Your task to perform on an android device: Show me popular games on the Play Store Image 0: 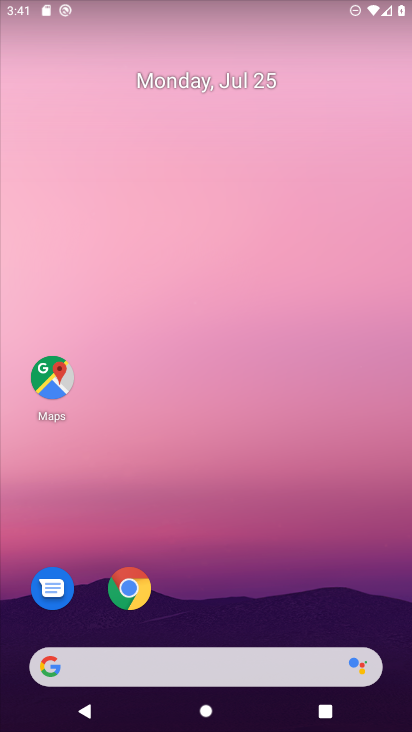
Step 0: drag from (250, 609) to (194, 216)
Your task to perform on an android device: Show me popular games on the Play Store Image 1: 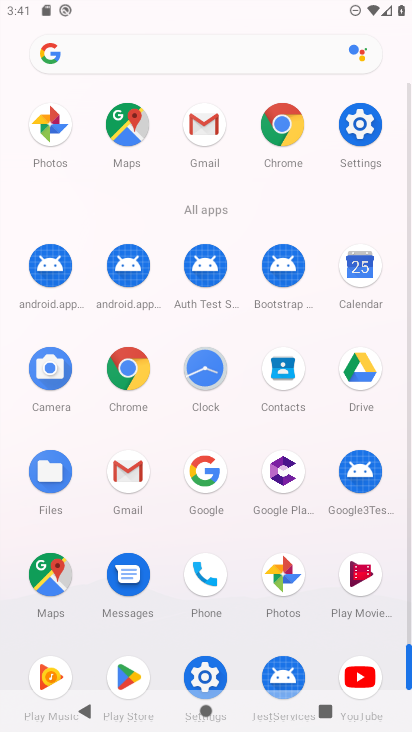
Step 1: click (123, 665)
Your task to perform on an android device: Show me popular games on the Play Store Image 2: 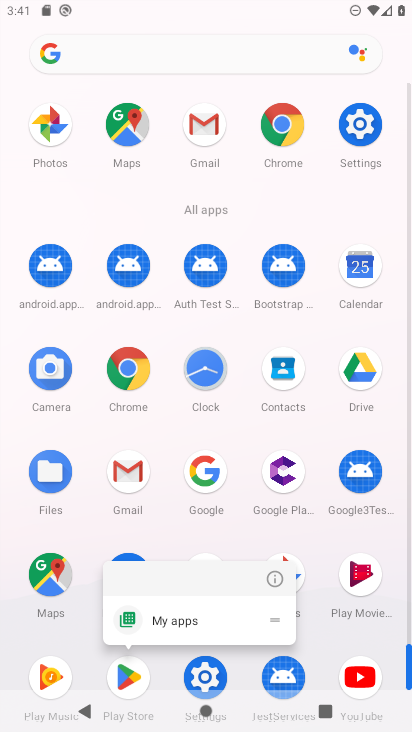
Step 2: click (137, 658)
Your task to perform on an android device: Show me popular games on the Play Store Image 3: 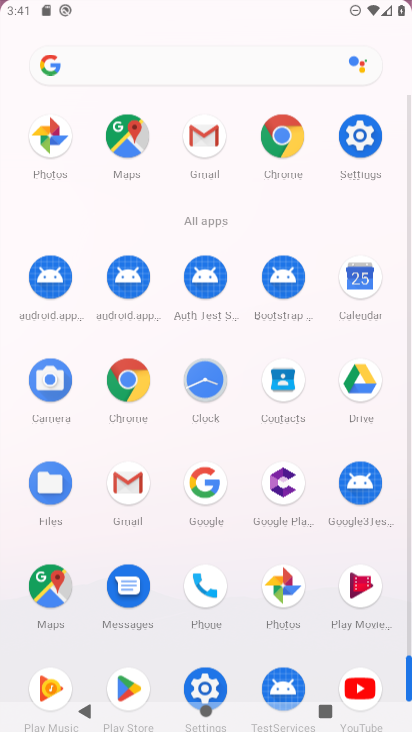
Step 3: click (138, 679)
Your task to perform on an android device: Show me popular games on the Play Store Image 4: 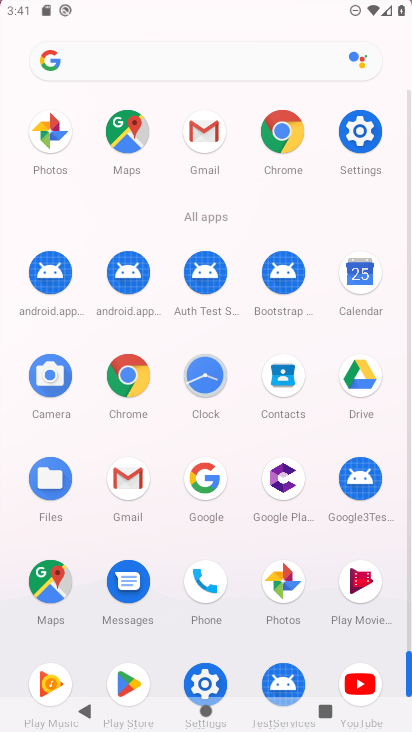
Step 4: click (140, 678)
Your task to perform on an android device: Show me popular games on the Play Store Image 5: 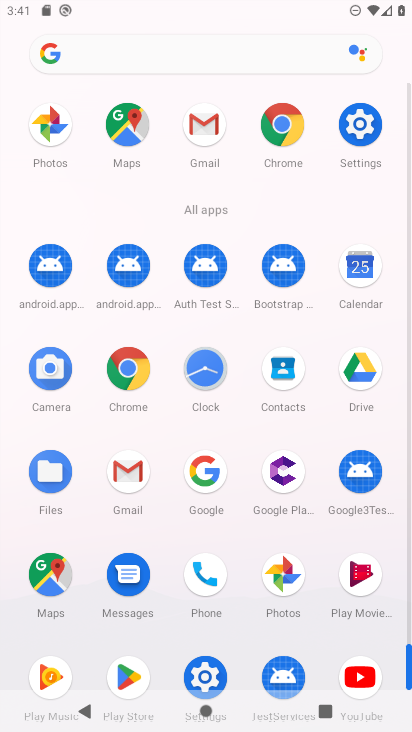
Step 5: click (118, 666)
Your task to perform on an android device: Show me popular games on the Play Store Image 6: 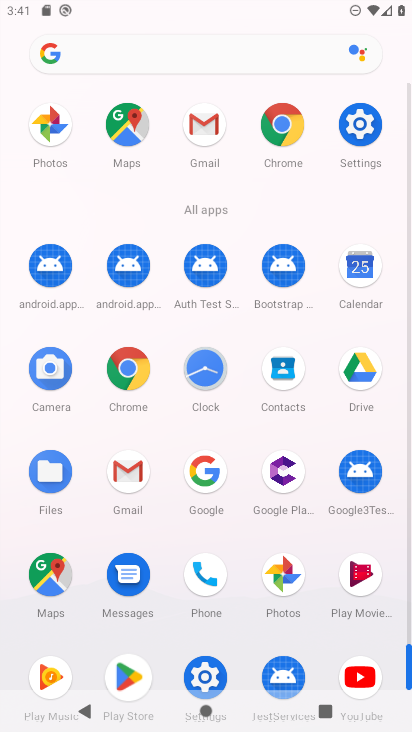
Step 6: click (118, 666)
Your task to perform on an android device: Show me popular games on the Play Store Image 7: 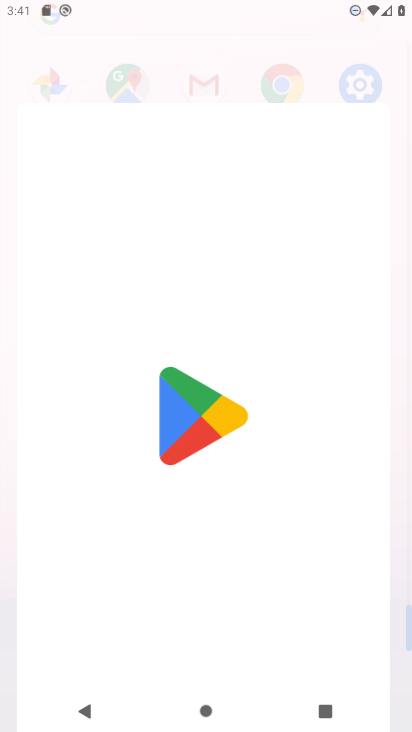
Step 7: click (119, 667)
Your task to perform on an android device: Show me popular games on the Play Store Image 8: 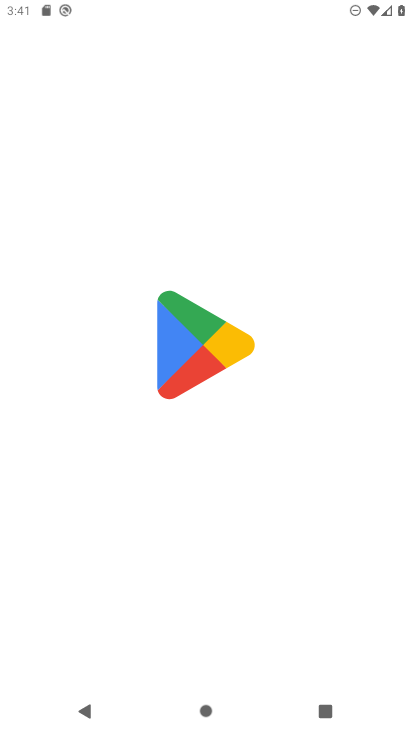
Step 8: click (119, 667)
Your task to perform on an android device: Show me popular games on the Play Store Image 9: 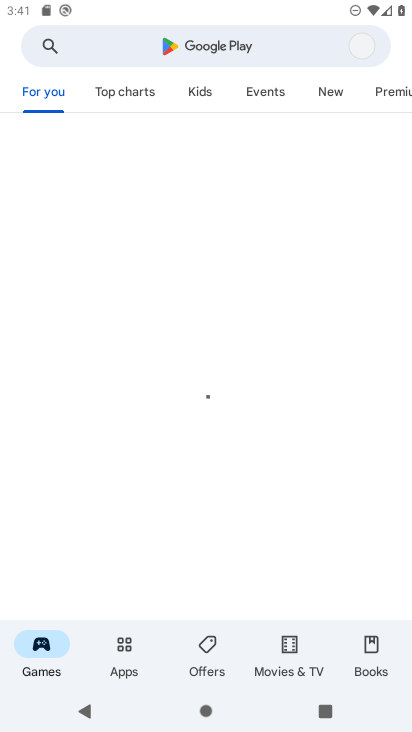
Step 9: click (209, 45)
Your task to perform on an android device: Show me popular games on the Play Store Image 10: 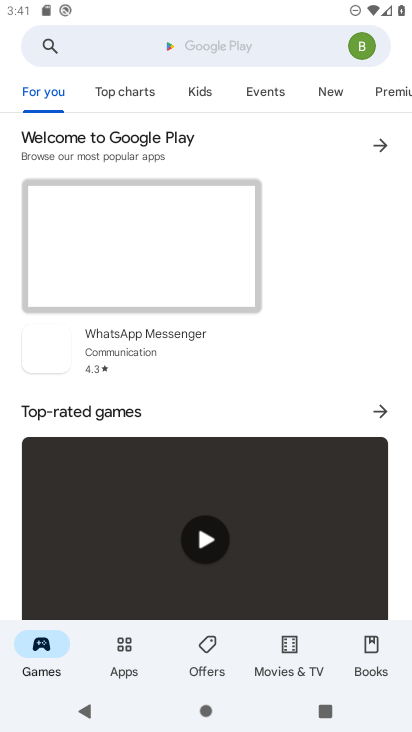
Step 10: click (211, 45)
Your task to perform on an android device: Show me popular games on the Play Store Image 11: 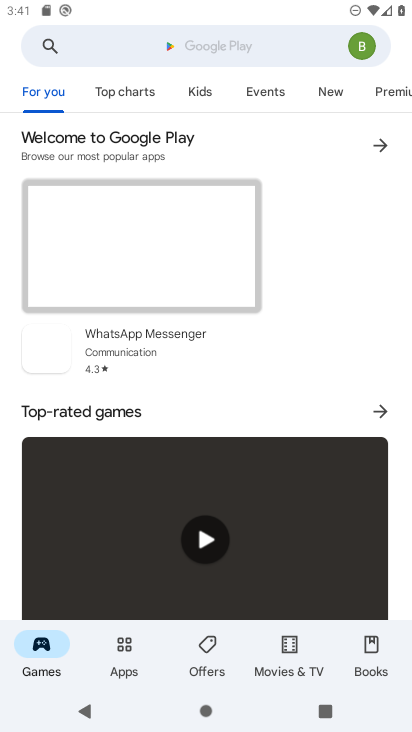
Step 11: click (211, 45)
Your task to perform on an android device: Show me popular games on the Play Store Image 12: 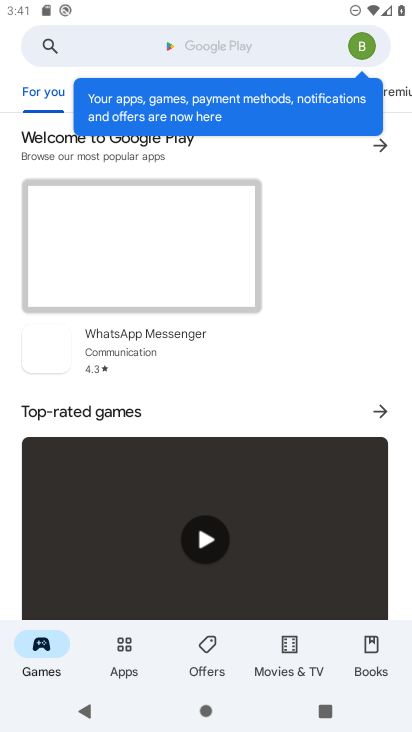
Step 12: click (211, 45)
Your task to perform on an android device: Show me popular games on the Play Store Image 13: 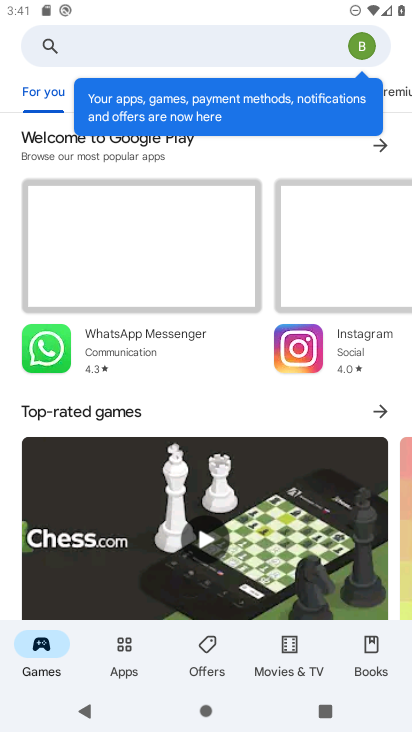
Step 13: click (219, 35)
Your task to perform on an android device: Show me popular games on the Play Store Image 14: 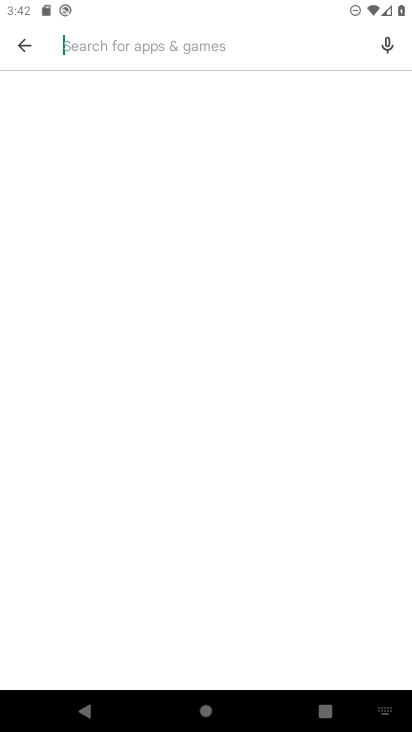
Step 14: type "games"
Your task to perform on an android device: Show me popular games on the Play Store Image 15: 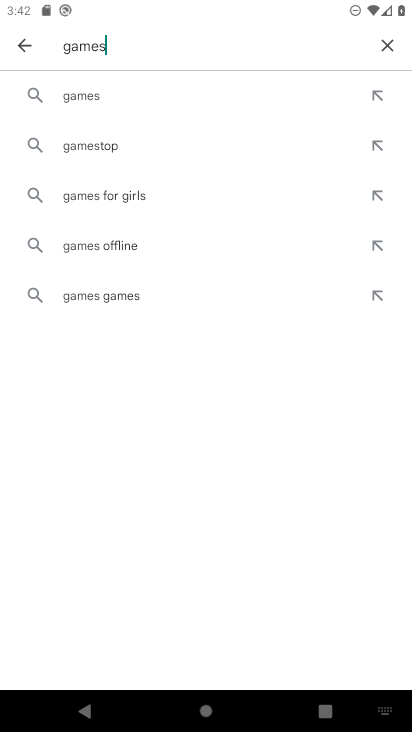
Step 15: click (115, 90)
Your task to perform on an android device: Show me popular games on the Play Store Image 16: 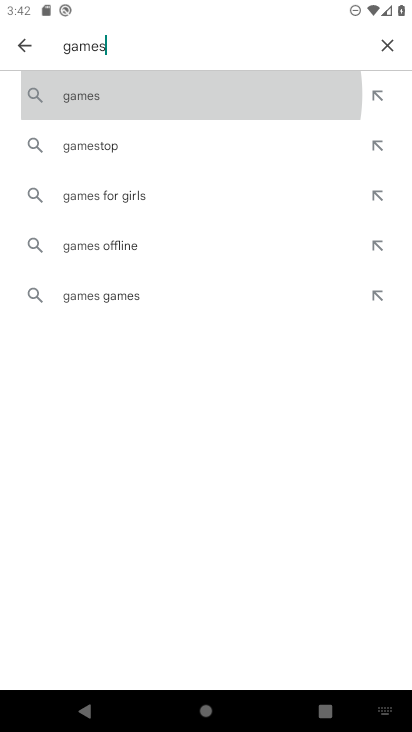
Step 16: click (115, 90)
Your task to perform on an android device: Show me popular games on the Play Store Image 17: 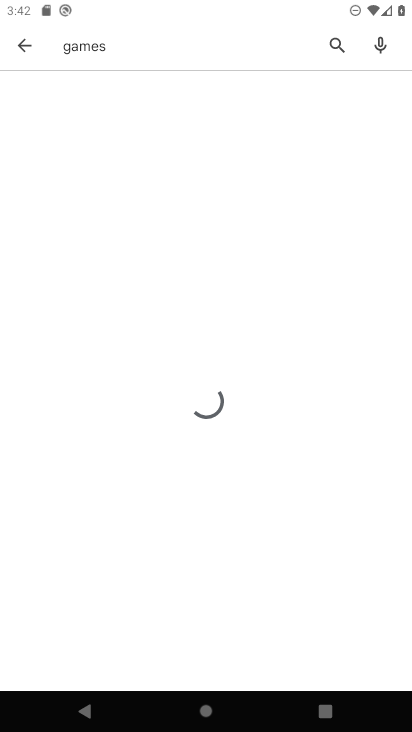
Step 17: click (108, 92)
Your task to perform on an android device: Show me popular games on the Play Store Image 18: 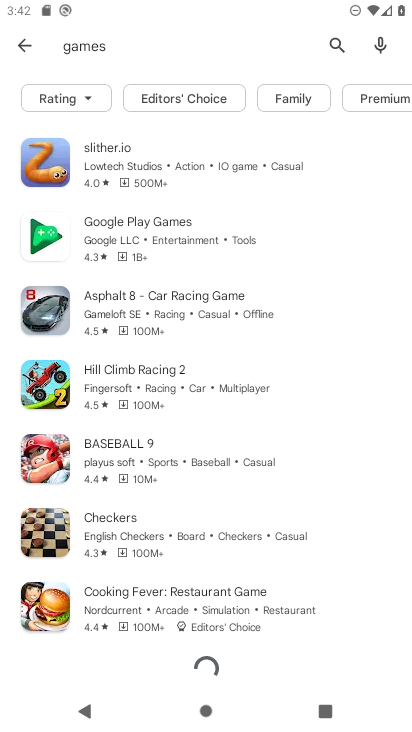
Step 18: task complete